Your task to perform on an android device: What is the recent news? Image 0: 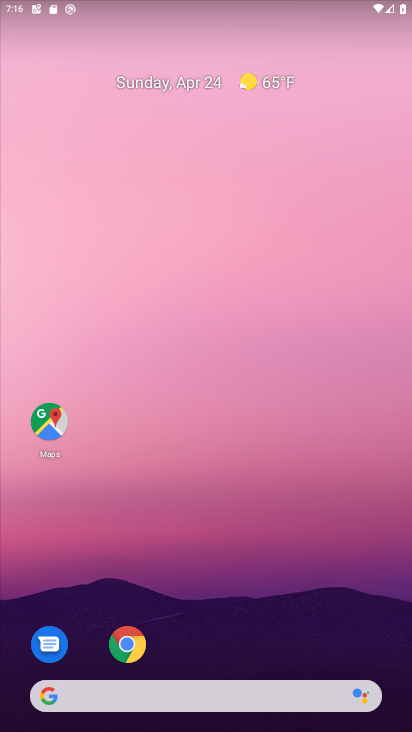
Step 0: drag from (8, 482) to (406, 474)
Your task to perform on an android device: What is the recent news? Image 1: 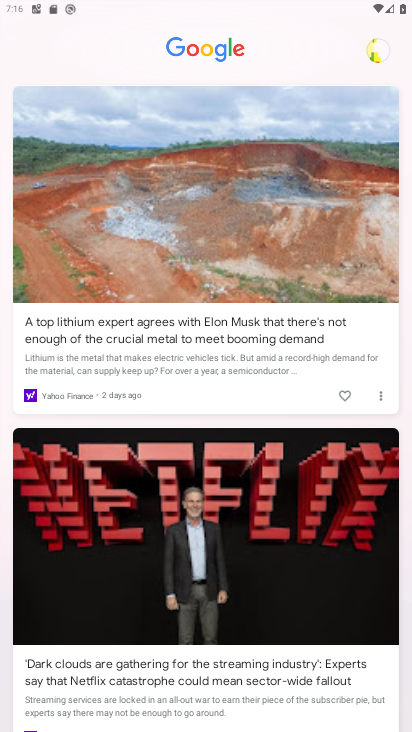
Step 1: task complete